Your task to perform on an android device: Open the Play Movies app and select the watchlist tab. Image 0: 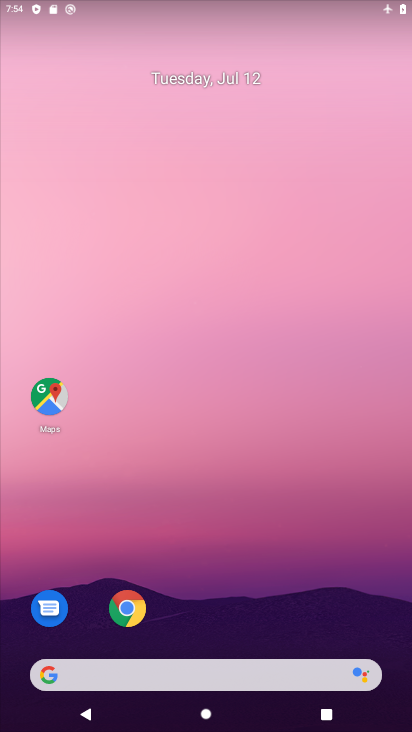
Step 0: drag from (213, 641) to (251, 695)
Your task to perform on an android device: Open the Play Movies app and select the watchlist tab. Image 1: 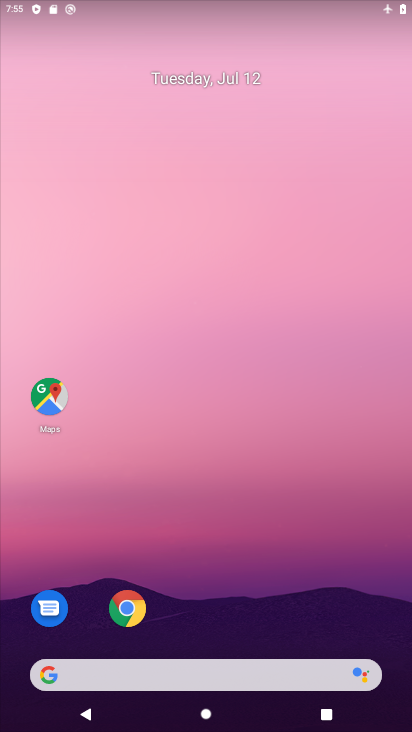
Step 1: drag from (222, 655) to (375, 0)
Your task to perform on an android device: Open the Play Movies app and select the watchlist tab. Image 2: 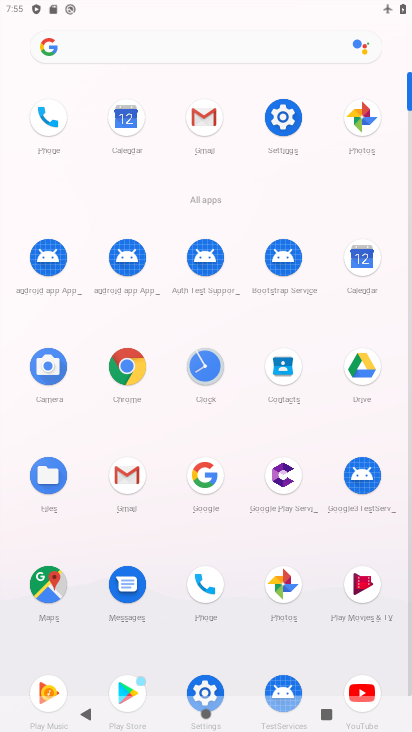
Step 2: drag from (237, 607) to (209, 200)
Your task to perform on an android device: Open the Play Movies app and select the watchlist tab. Image 3: 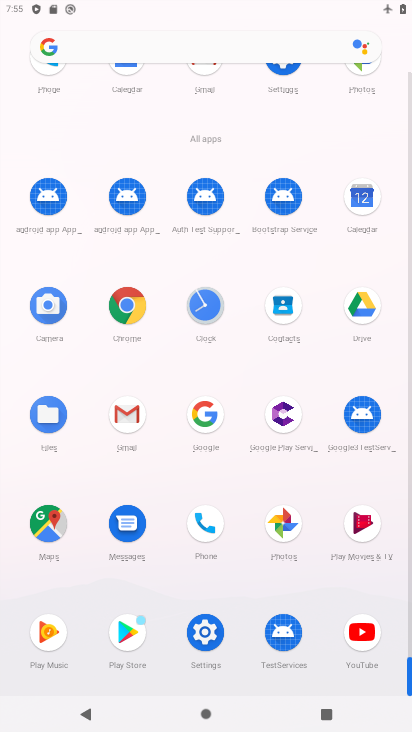
Step 3: click (371, 518)
Your task to perform on an android device: Open the Play Movies app and select the watchlist tab. Image 4: 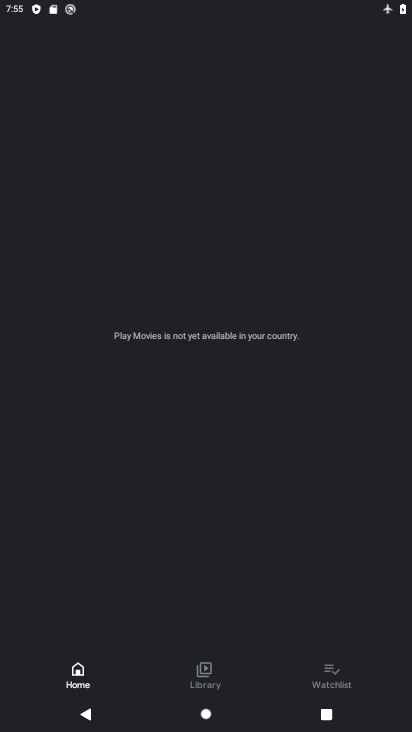
Step 4: click (342, 678)
Your task to perform on an android device: Open the Play Movies app and select the watchlist tab. Image 5: 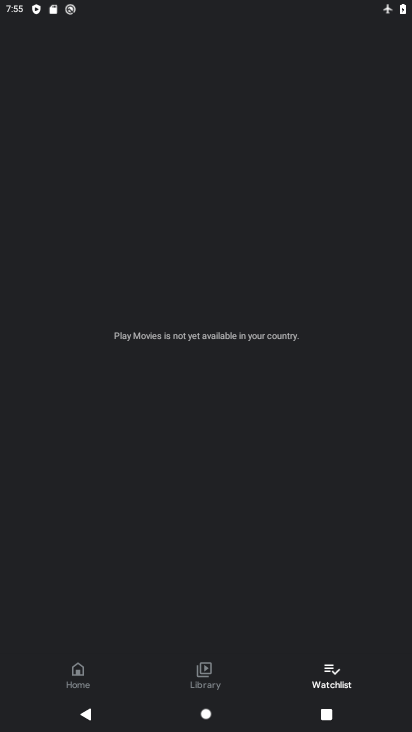
Step 5: task complete